Your task to perform on an android device: Open Google Chrome and open the bookmarks view Image 0: 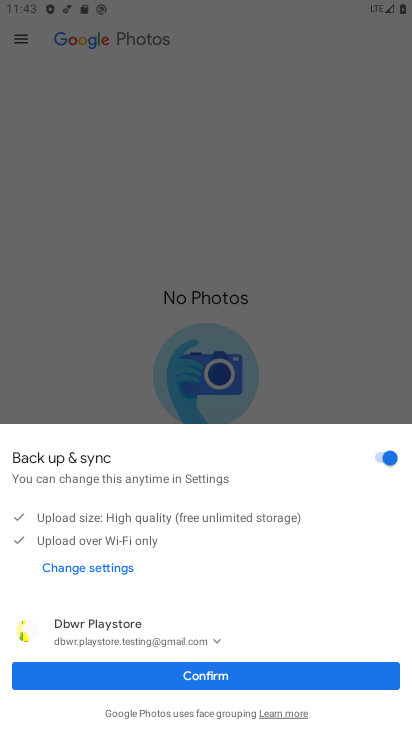
Step 0: press home button
Your task to perform on an android device: Open Google Chrome and open the bookmarks view Image 1: 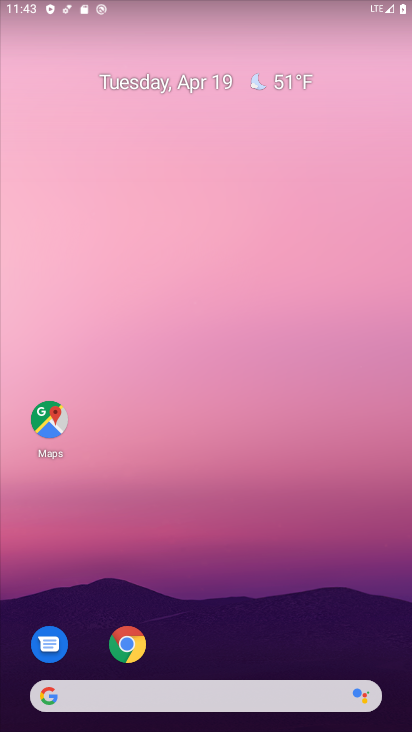
Step 1: click (129, 644)
Your task to perform on an android device: Open Google Chrome and open the bookmarks view Image 2: 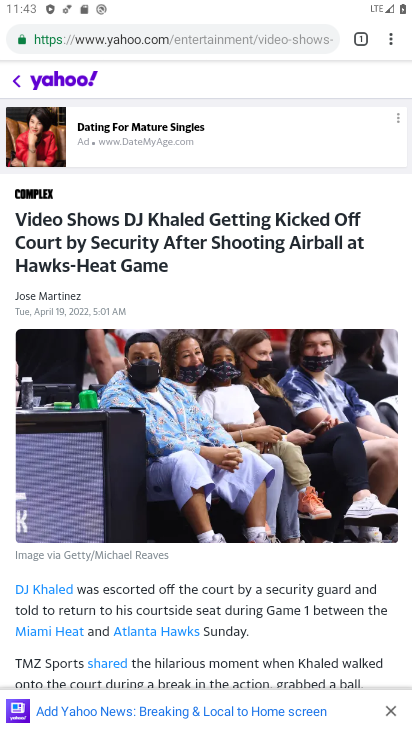
Step 2: task complete